Your task to perform on an android device: Open Google Chrome and open the bookmarks view Image 0: 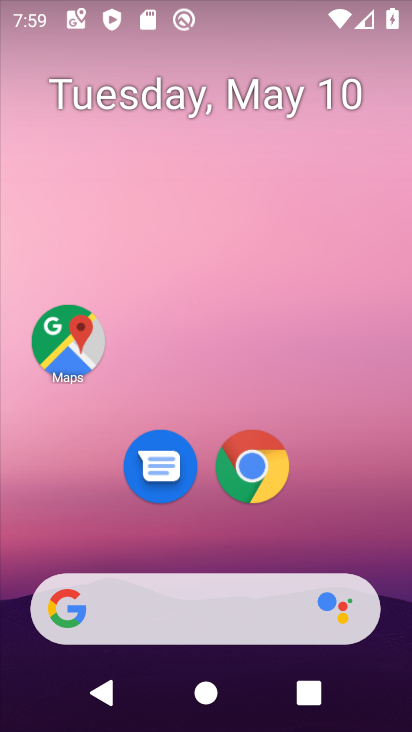
Step 0: click (258, 473)
Your task to perform on an android device: Open Google Chrome and open the bookmarks view Image 1: 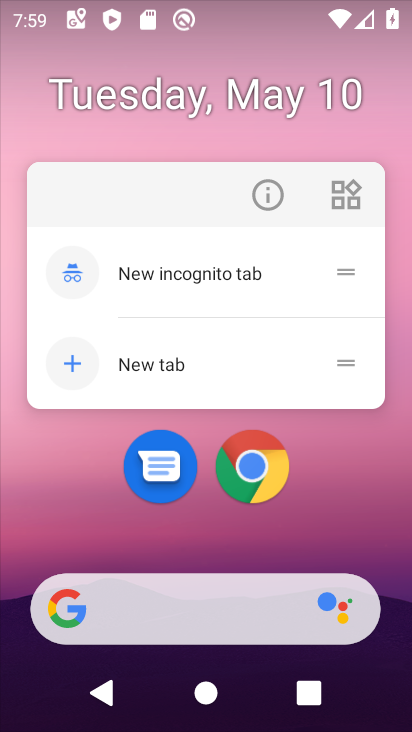
Step 1: click (242, 433)
Your task to perform on an android device: Open Google Chrome and open the bookmarks view Image 2: 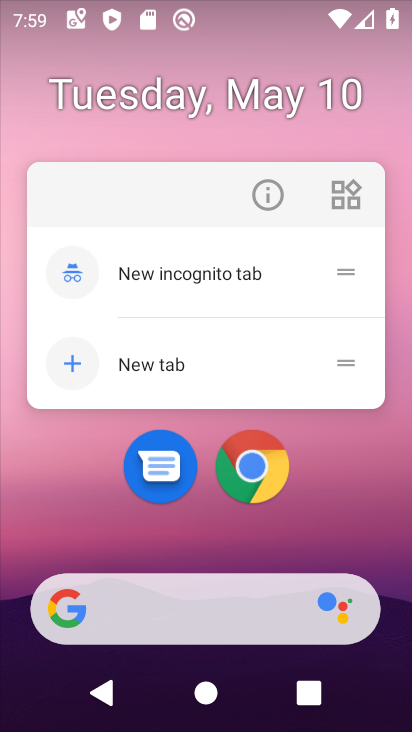
Step 2: click (247, 436)
Your task to perform on an android device: Open Google Chrome and open the bookmarks view Image 3: 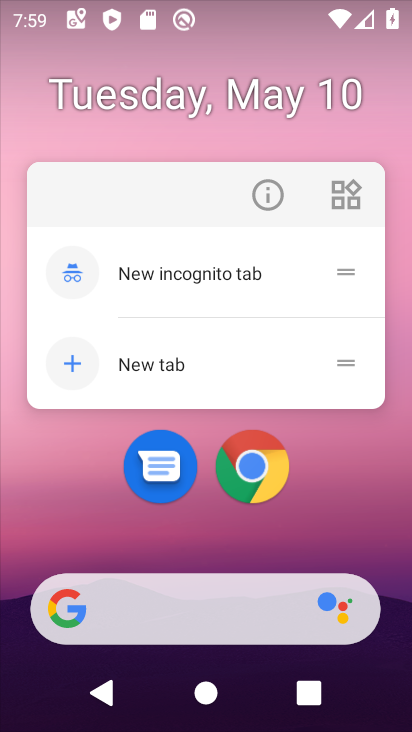
Step 3: click (257, 476)
Your task to perform on an android device: Open Google Chrome and open the bookmarks view Image 4: 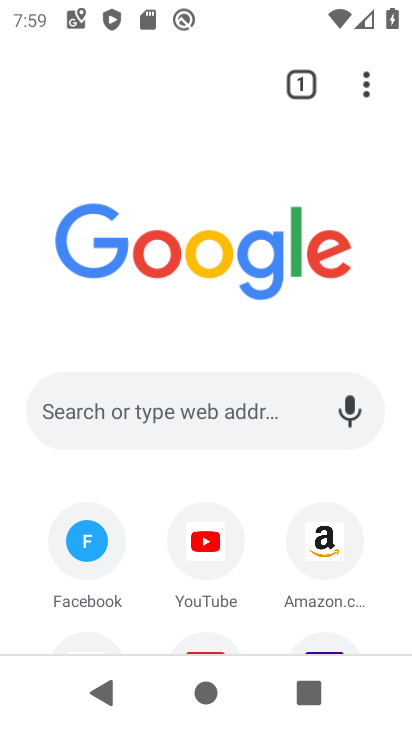
Step 4: click (361, 84)
Your task to perform on an android device: Open Google Chrome and open the bookmarks view Image 5: 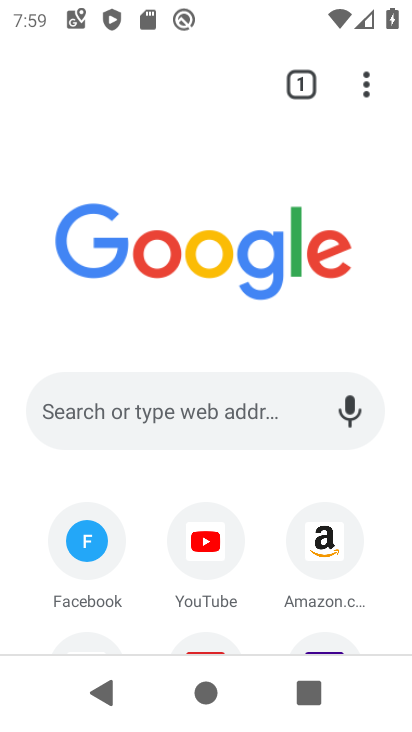
Step 5: click (361, 83)
Your task to perform on an android device: Open Google Chrome and open the bookmarks view Image 6: 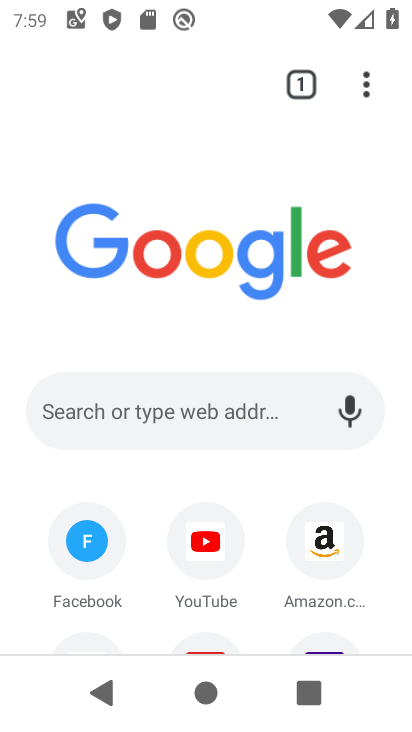
Step 6: click (361, 83)
Your task to perform on an android device: Open Google Chrome and open the bookmarks view Image 7: 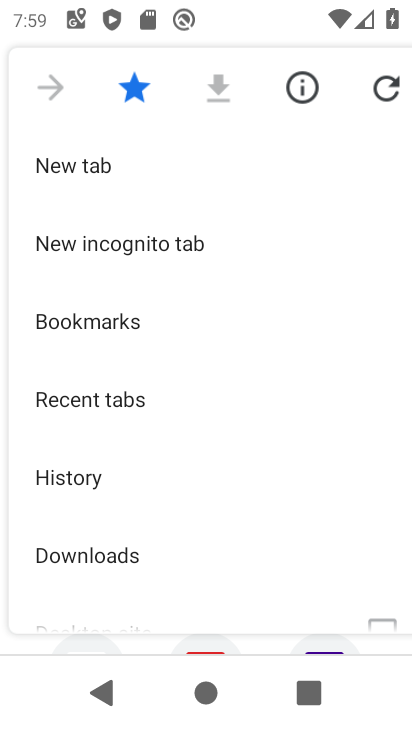
Step 7: click (115, 332)
Your task to perform on an android device: Open Google Chrome and open the bookmarks view Image 8: 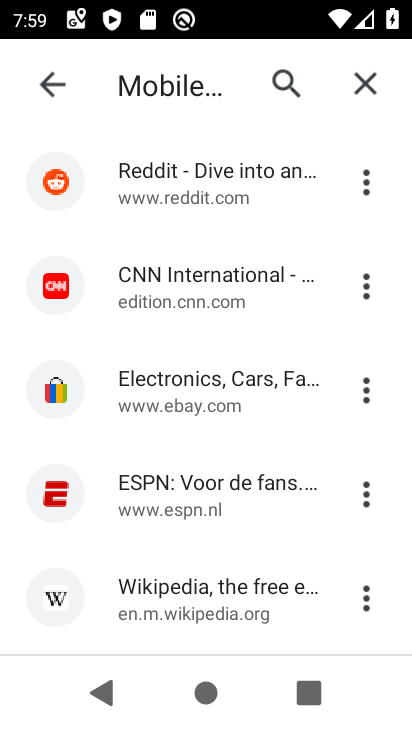
Step 8: task complete